Your task to perform on an android device: Open location settings Image 0: 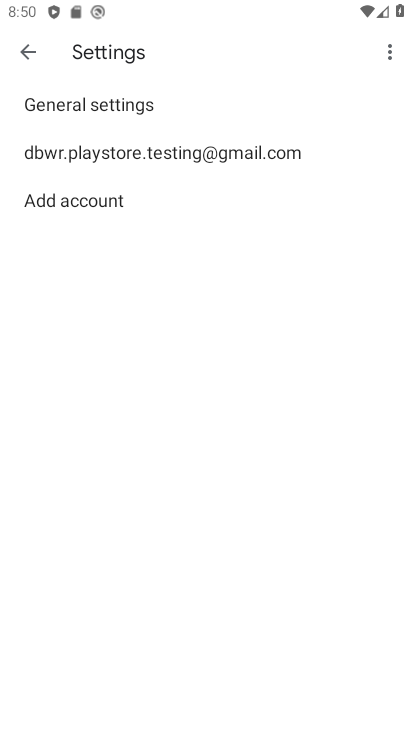
Step 0: drag from (228, 6) to (236, 628)
Your task to perform on an android device: Open location settings Image 1: 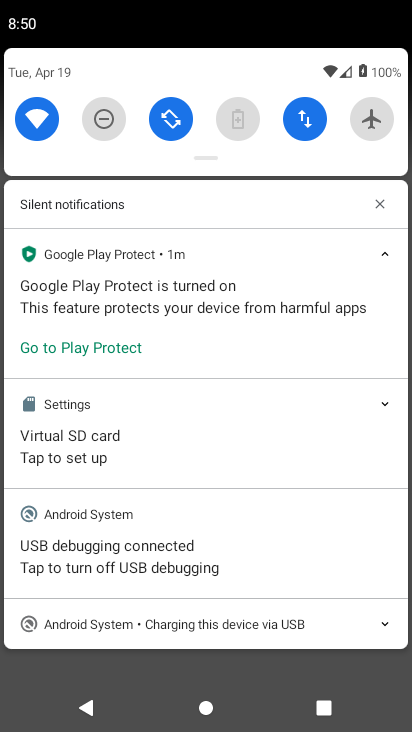
Step 1: drag from (195, 73) to (183, 575)
Your task to perform on an android device: Open location settings Image 2: 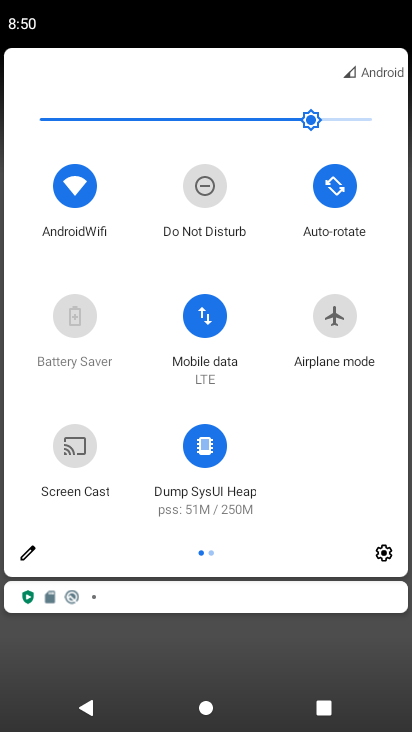
Step 2: click (379, 559)
Your task to perform on an android device: Open location settings Image 3: 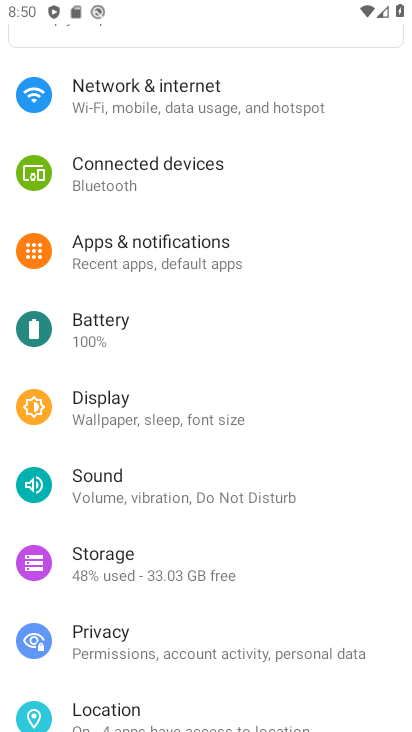
Step 3: click (73, 710)
Your task to perform on an android device: Open location settings Image 4: 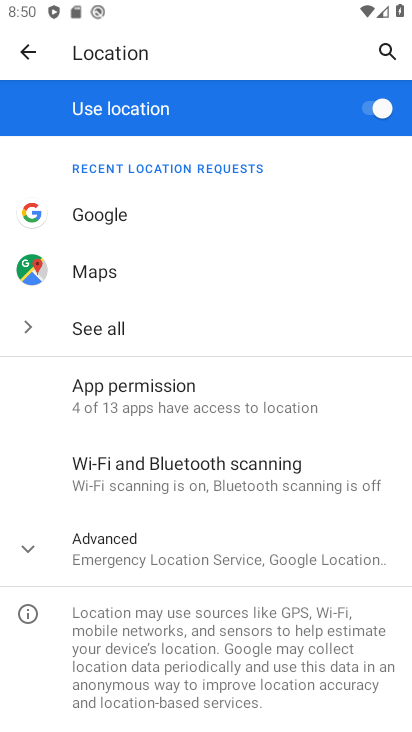
Step 4: task complete